Your task to perform on an android device: Go to display settings Image 0: 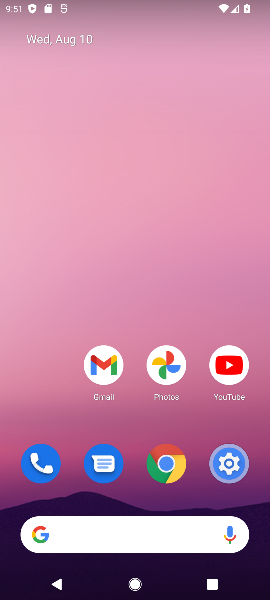
Step 0: click (224, 466)
Your task to perform on an android device: Go to display settings Image 1: 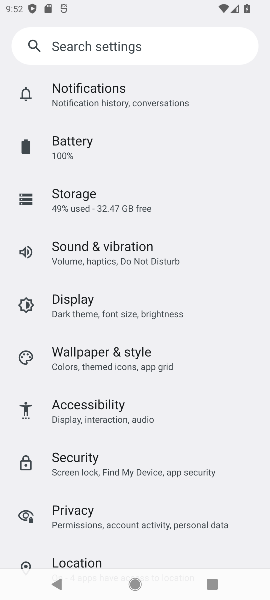
Step 1: click (83, 307)
Your task to perform on an android device: Go to display settings Image 2: 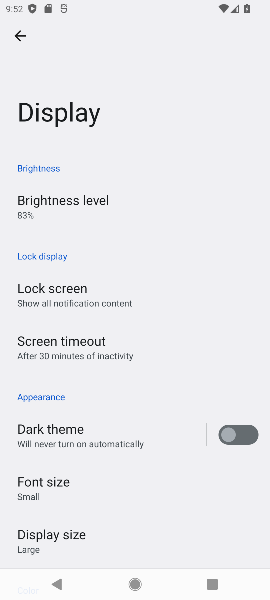
Step 2: task complete